Your task to perform on an android device: toggle sleep mode Image 0: 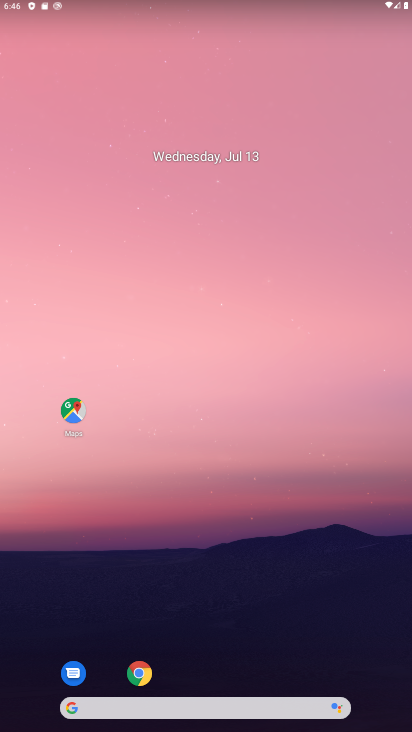
Step 0: drag from (265, 611) to (293, 67)
Your task to perform on an android device: toggle sleep mode Image 1: 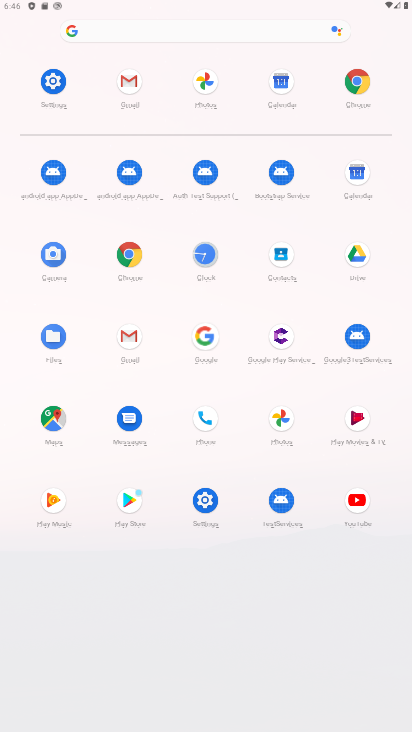
Step 1: click (59, 84)
Your task to perform on an android device: toggle sleep mode Image 2: 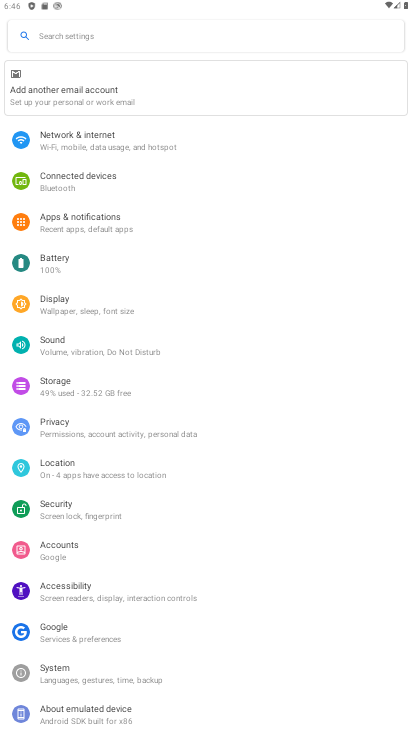
Step 2: click (97, 306)
Your task to perform on an android device: toggle sleep mode Image 3: 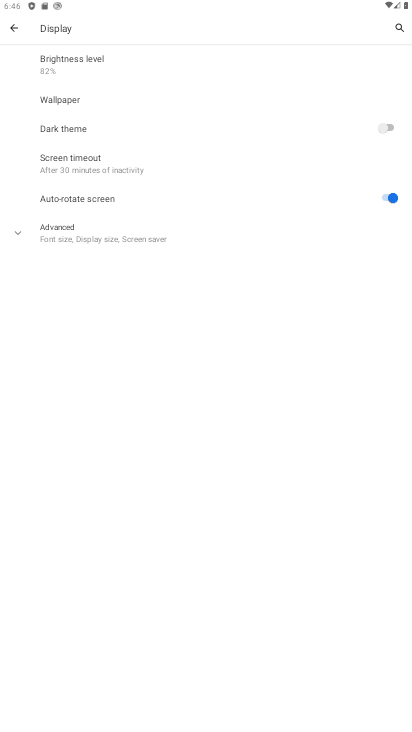
Step 3: click (88, 168)
Your task to perform on an android device: toggle sleep mode Image 4: 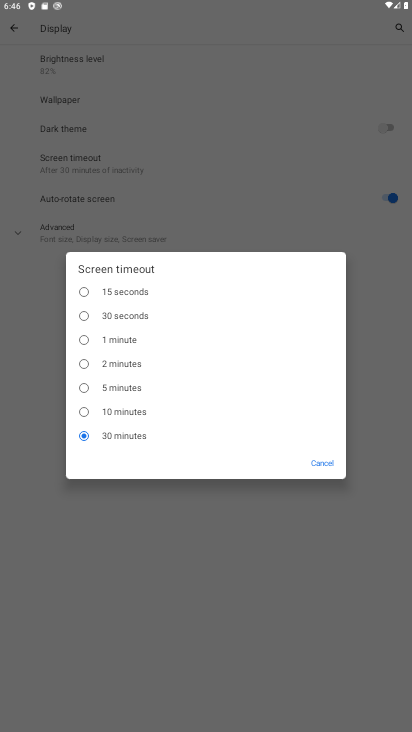
Step 4: click (118, 365)
Your task to perform on an android device: toggle sleep mode Image 5: 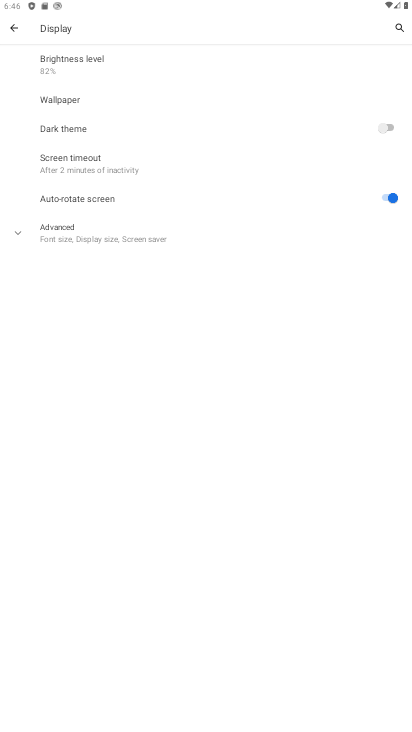
Step 5: task complete